Your task to perform on an android device: check out phone information Image 0: 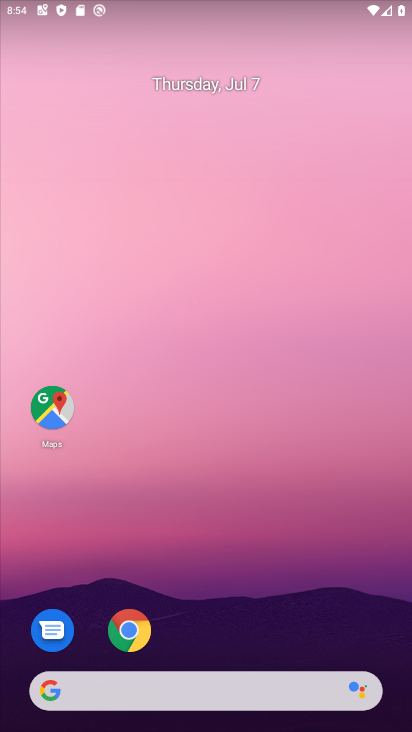
Step 0: drag from (258, 642) to (341, 54)
Your task to perform on an android device: check out phone information Image 1: 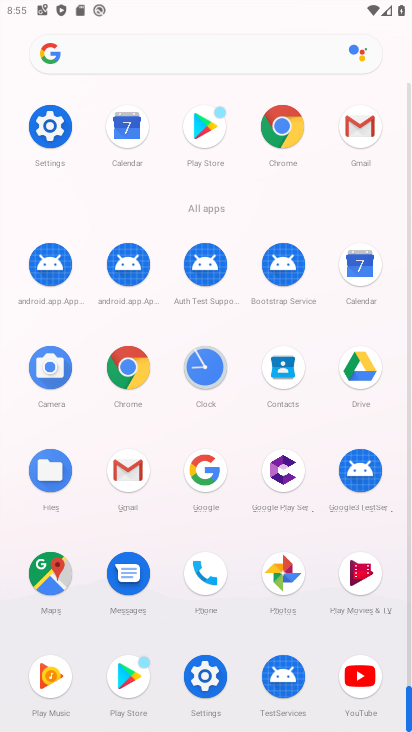
Step 1: click (43, 129)
Your task to perform on an android device: check out phone information Image 2: 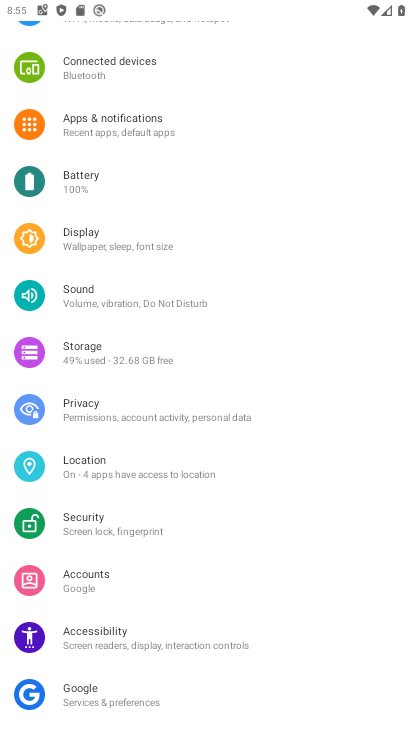
Step 2: drag from (203, 566) to (229, 228)
Your task to perform on an android device: check out phone information Image 3: 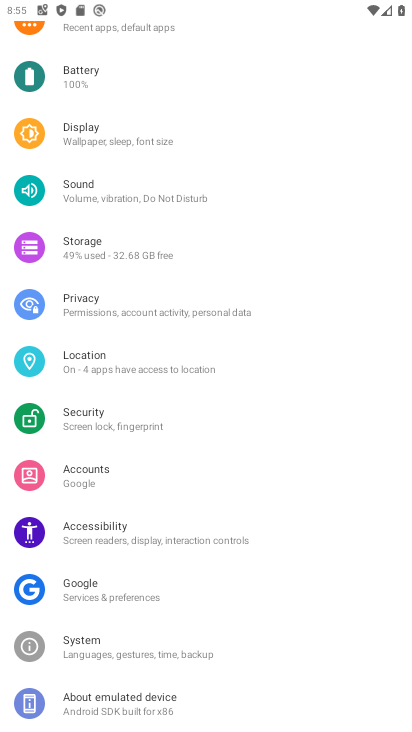
Step 3: drag from (107, 589) to (166, 437)
Your task to perform on an android device: check out phone information Image 4: 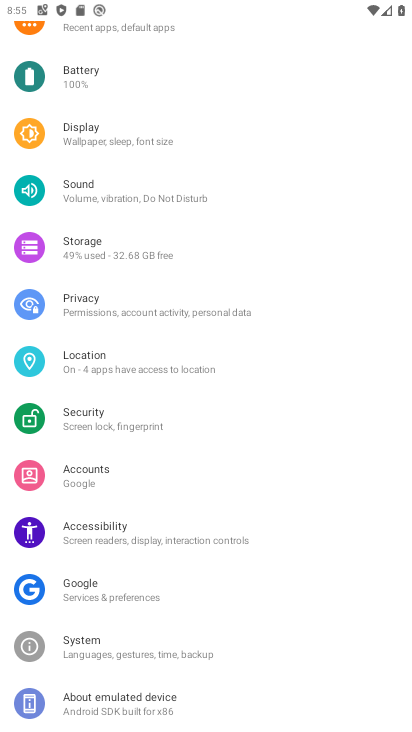
Step 4: drag from (187, 639) to (261, 24)
Your task to perform on an android device: check out phone information Image 5: 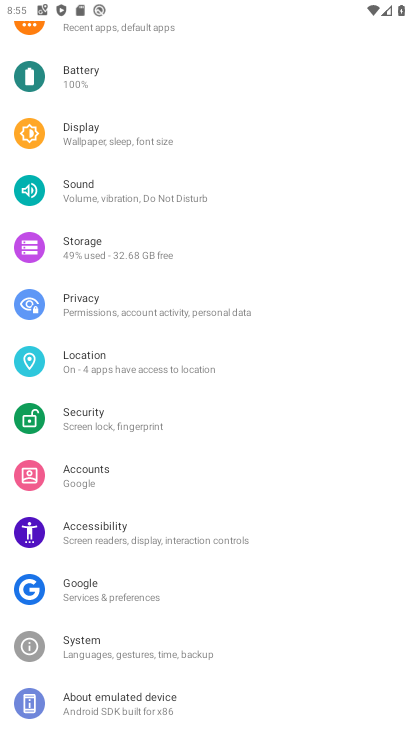
Step 5: click (136, 715)
Your task to perform on an android device: check out phone information Image 6: 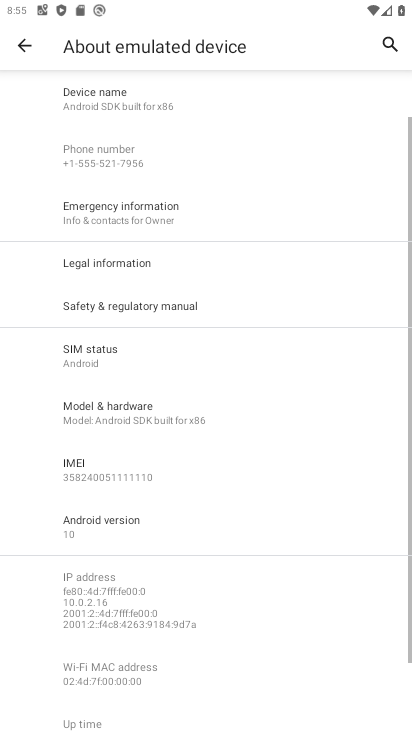
Step 6: task complete